Your task to perform on an android device: Turn off the flashlight Image 0: 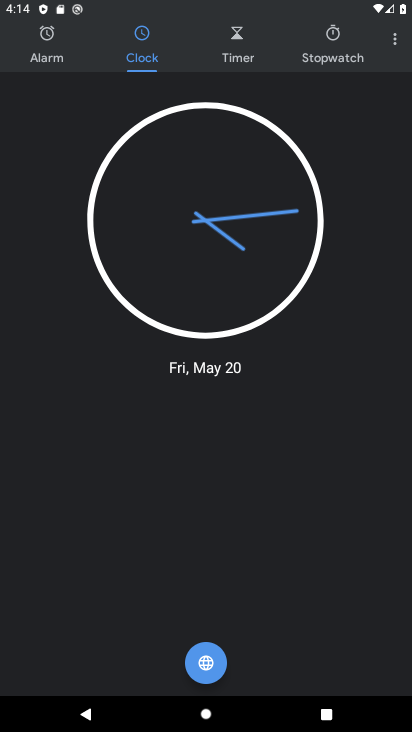
Step 0: press back button
Your task to perform on an android device: Turn off the flashlight Image 1: 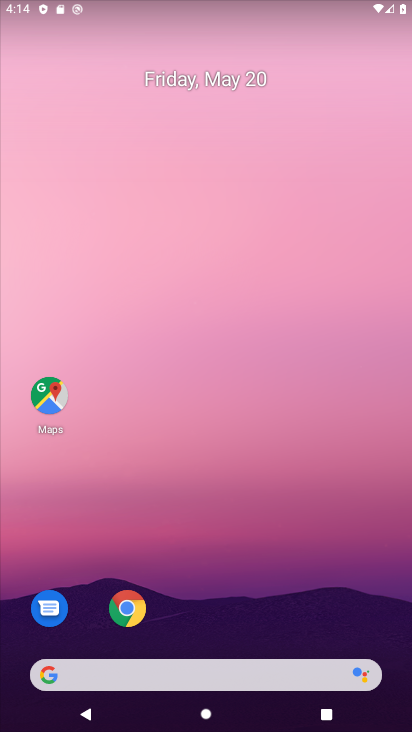
Step 1: drag from (241, 631) to (218, 94)
Your task to perform on an android device: Turn off the flashlight Image 2: 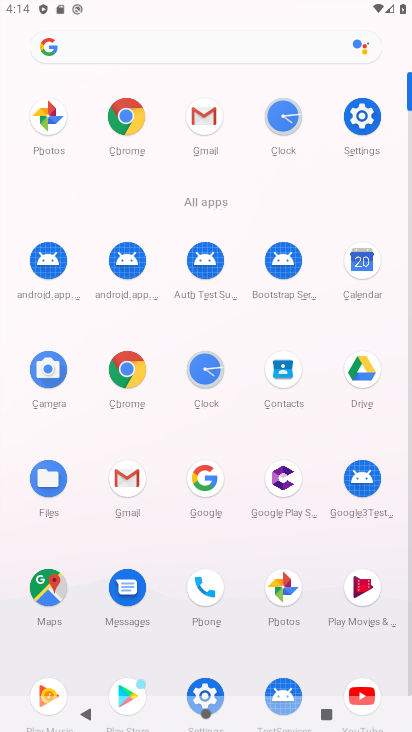
Step 2: click (373, 123)
Your task to perform on an android device: Turn off the flashlight Image 3: 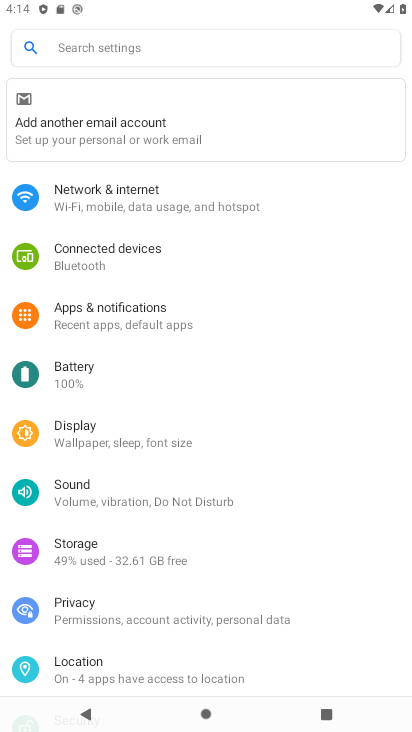
Step 3: task complete